Your task to perform on an android device: Show me popular games on the Play Store Image 0: 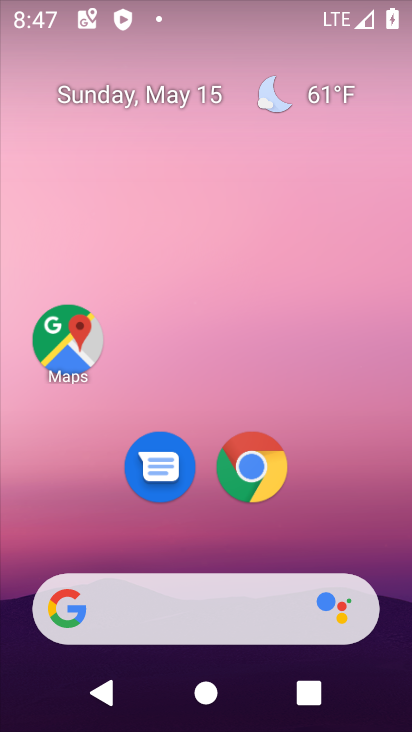
Step 0: drag from (205, 541) to (221, 48)
Your task to perform on an android device: Show me popular games on the Play Store Image 1: 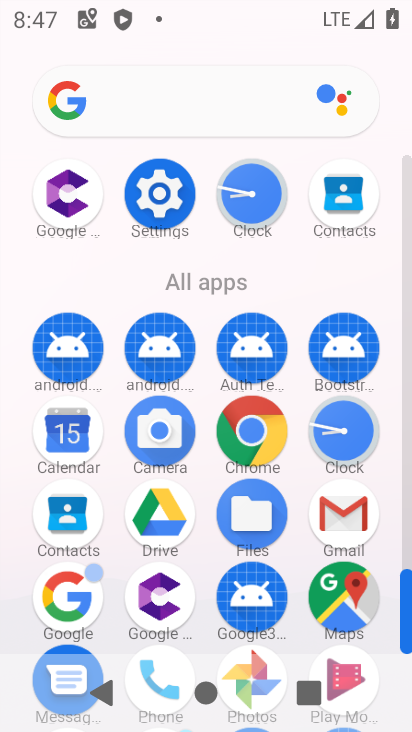
Step 1: drag from (206, 564) to (231, 40)
Your task to perform on an android device: Show me popular games on the Play Store Image 2: 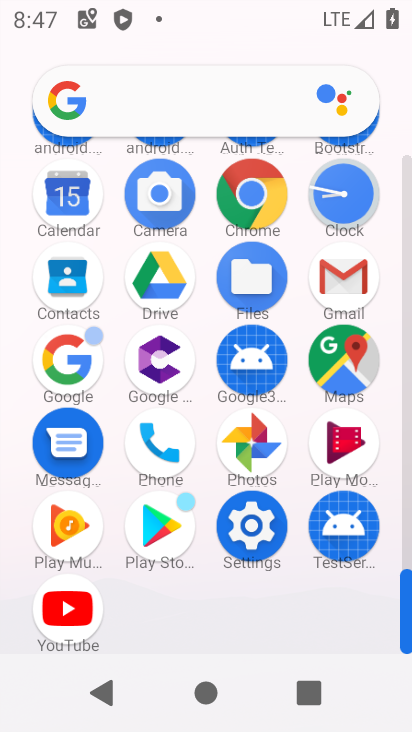
Step 2: click (152, 531)
Your task to perform on an android device: Show me popular games on the Play Store Image 3: 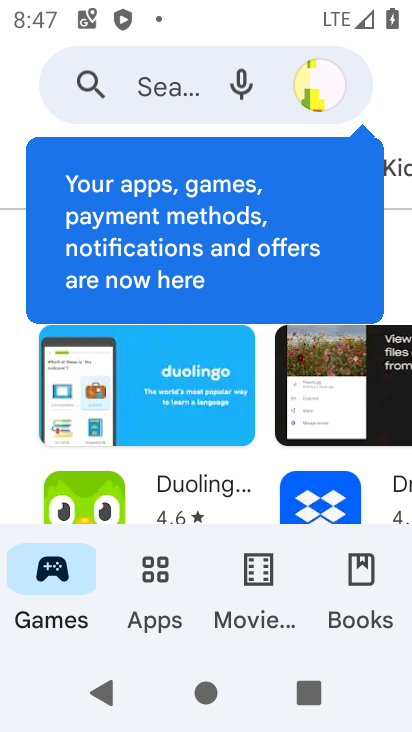
Step 3: click (26, 461)
Your task to perform on an android device: Show me popular games on the Play Store Image 4: 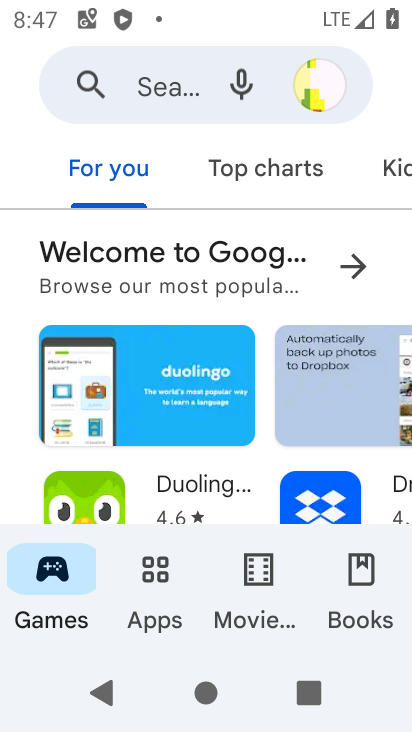
Step 4: click (285, 155)
Your task to perform on an android device: Show me popular games on the Play Store Image 5: 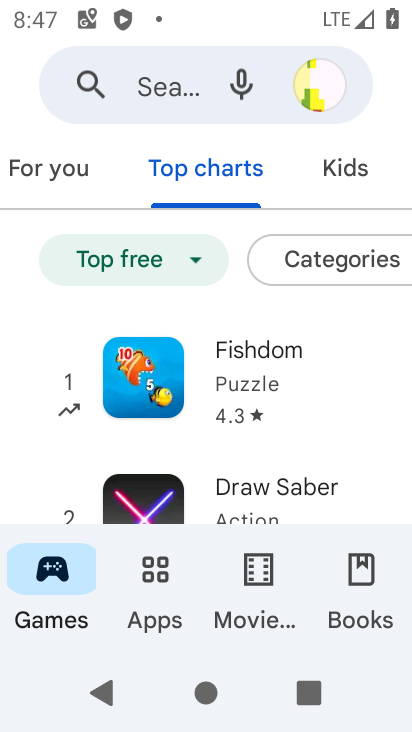
Step 5: task complete